Your task to perform on an android device: Go to eBay Image 0: 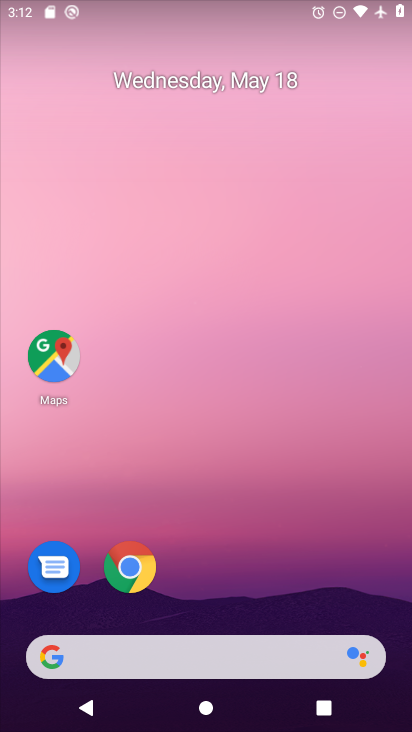
Step 0: click (127, 557)
Your task to perform on an android device: Go to eBay Image 1: 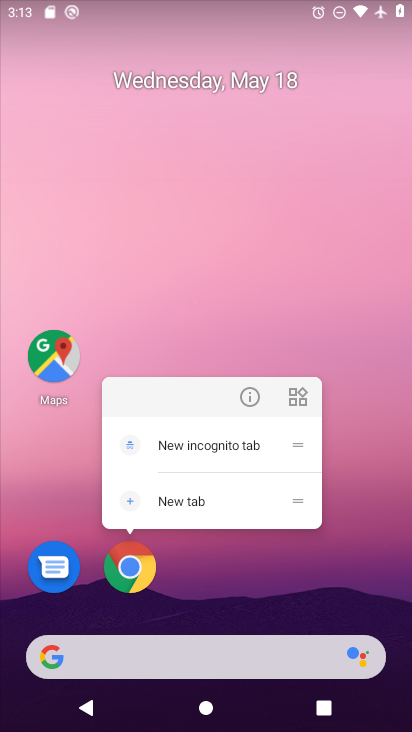
Step 1: click (128, 559)
Your task to perform on an android device: Go to eBay Image 2: 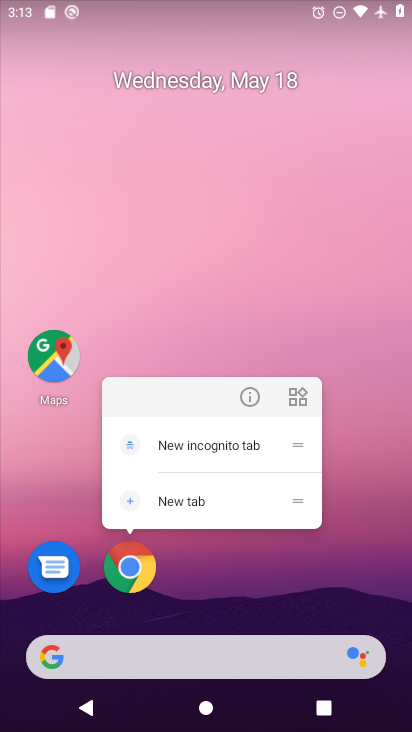
Step 2: click (130, 575)
Your task to perform on an android device: Go to eBay Image 3: 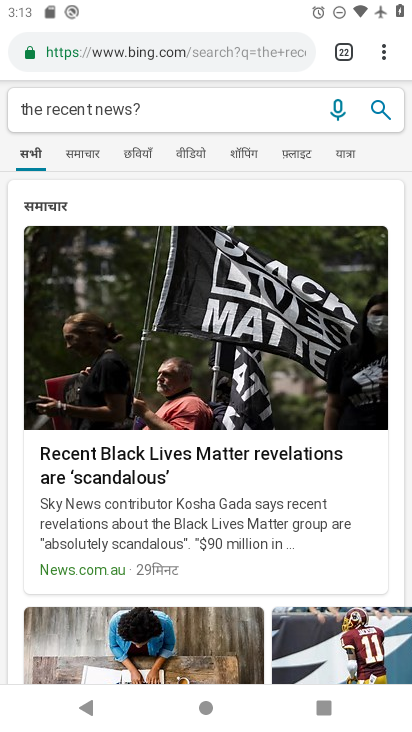
Step 3: click (382, 47)
Your task to perform on an android device: Go to eBay Image 4: 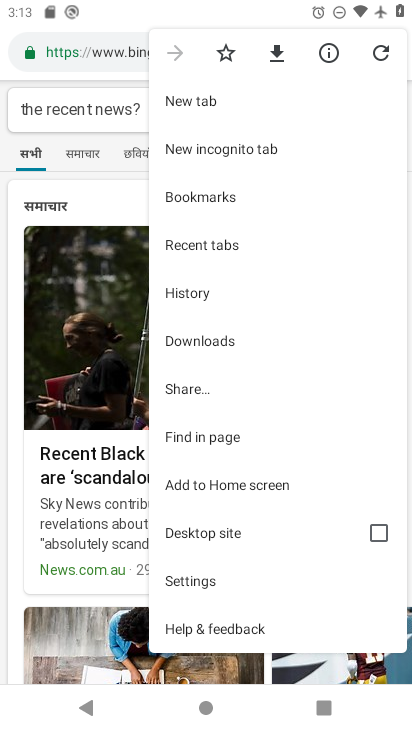
Step 4: click (209, 101)
Your task to perform on an android device: Go to eBay Image 5: 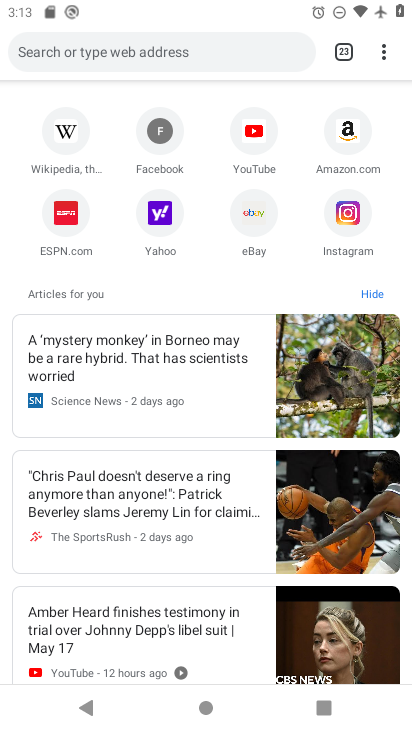
Step 5: click (234, 215)
Your task to perform on an android device: Go to eBay Image 6: 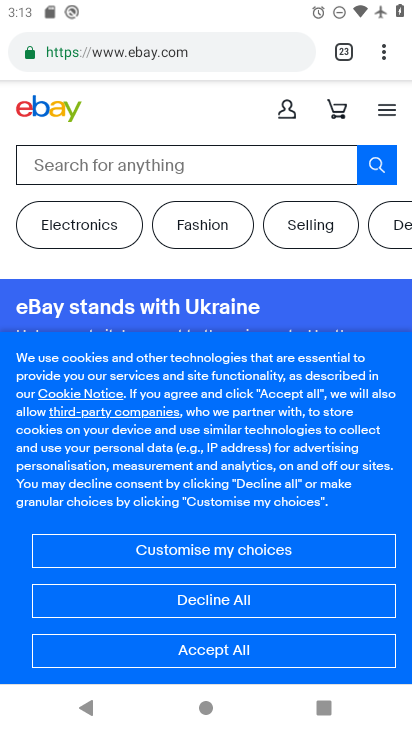
Step 6: task complete